Your task to perform on an android device: When is my next appointment? Image 0: 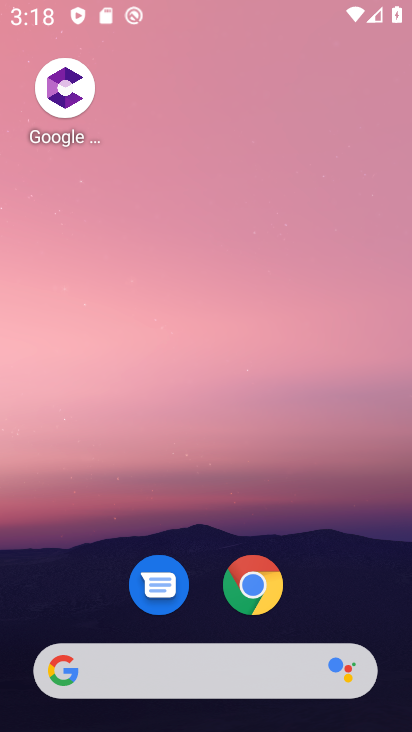
Step 0: drag from (228, 30) to (173, 49)
Your task to perform on an android device: When is my next appointment? Image 1: 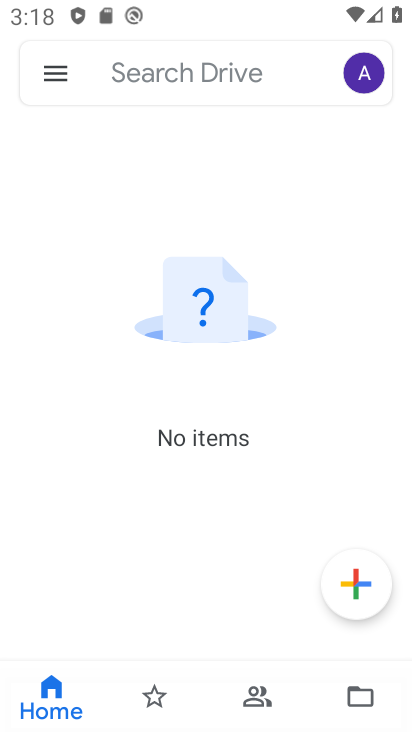
Step 1: press home button
Your task to perform on an android device: When is my next appointment? Image 2: 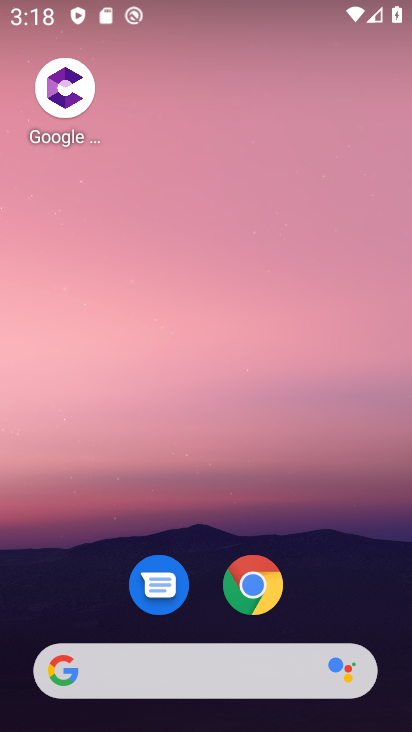
Step 2: drag from (153, 676) to (205, 101)
Your task to perform on an android device: When is my next appointment? Image 3: 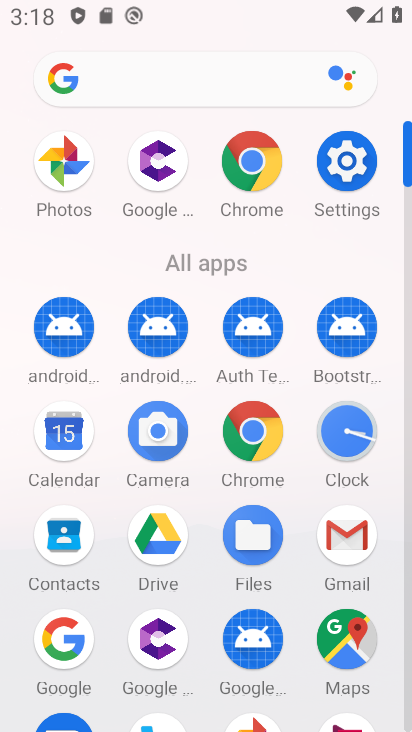
Step 3: click (338, 184)
Your task to perform on an android device: When is my next appointment? Image 4: 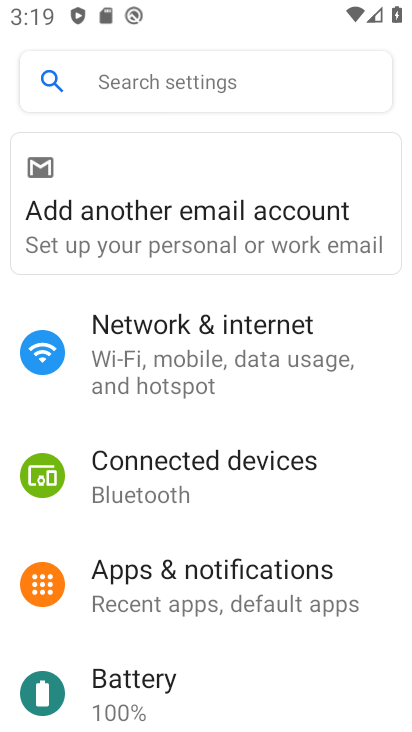
Step 4: press home button
Your task to perform on an android device: When is my next appointment? Image 5: 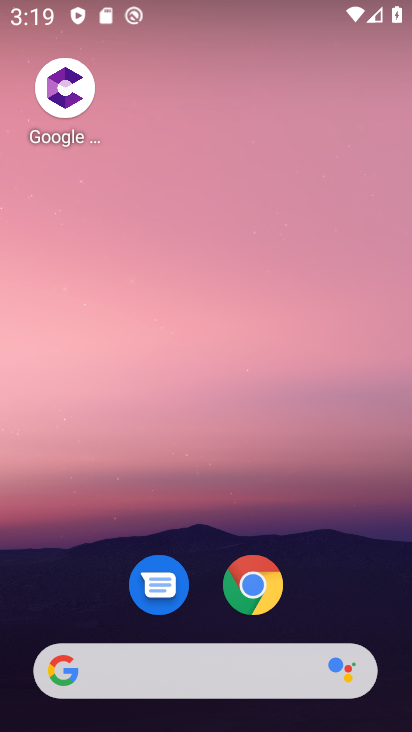
Step 5: drag from (182, 648) to (187, 73)
Your task to perform on an android device: When is my next appointment? Image 6: 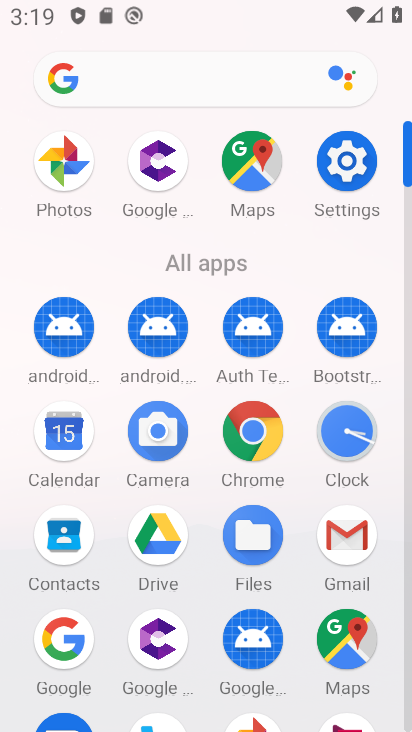
Step 6: click (68, 436)
Your task to perform on an android device: When is my next appointment? Image 7: 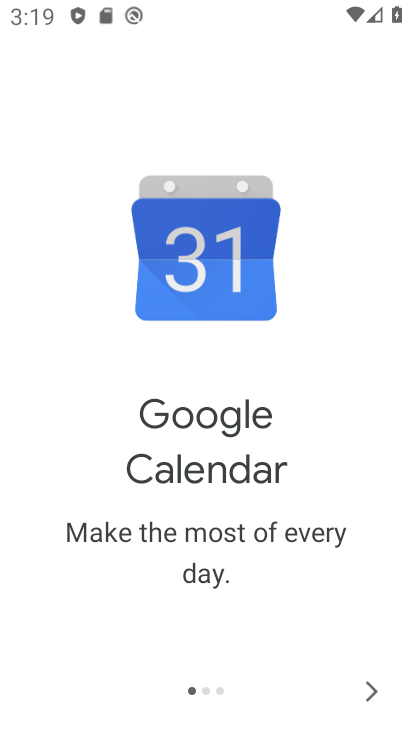
Step 7: click (363, 689)
Your task to perform on an android device: When is my next appointment? Image 8: 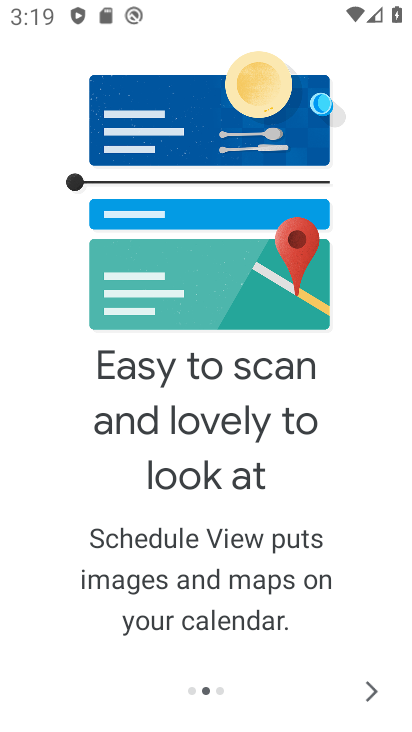
Step 8: click (370, 692)
Your task to perform on an android device: When is my next appointment? Image 9: 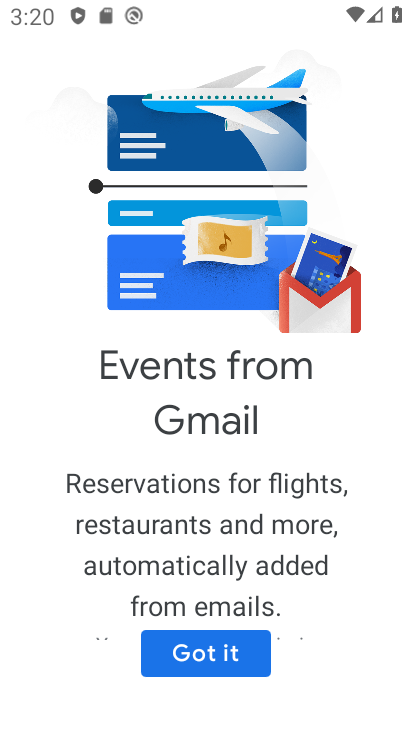
Step 9: click (194, 663)
Your task to perform on an android device: When is my next appointment? Image 10: 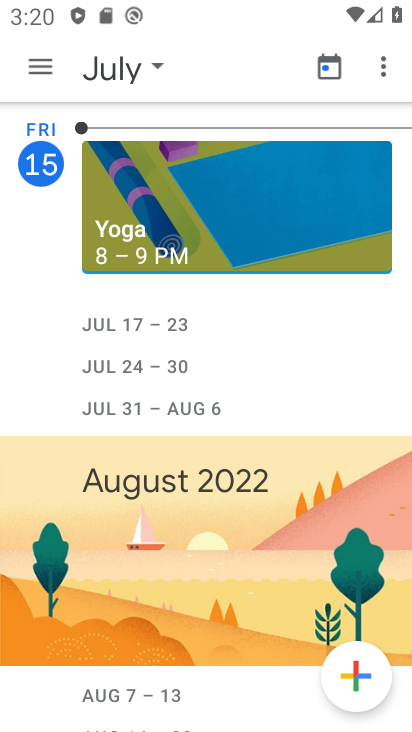
Step 10: task complete